Your task to perform on an android device: open sync settings in chrome Image 0: 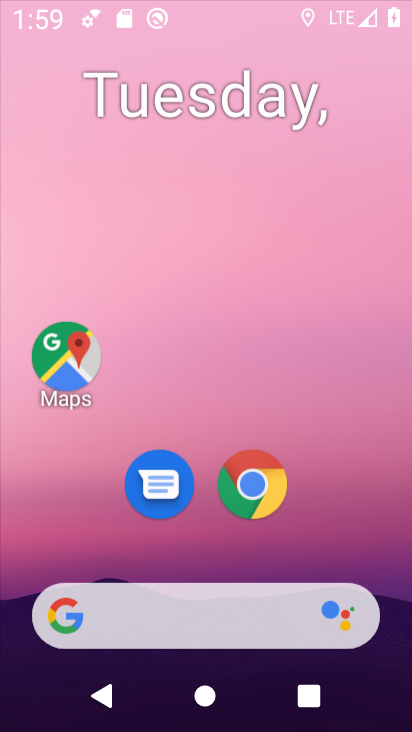
Step 0: press home button
Your task to perform on an android device: open sync settings in chrome Image 1: 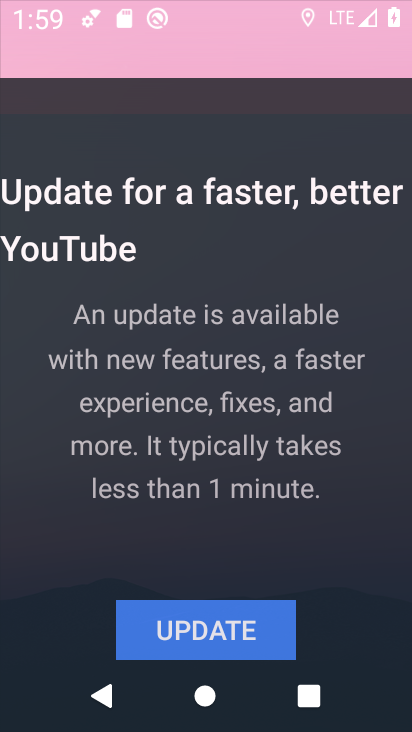
Step 1: drag from (346, 468) to (348, 78)
Your task to perform on an android device: open sync settings in chrome Image 2: 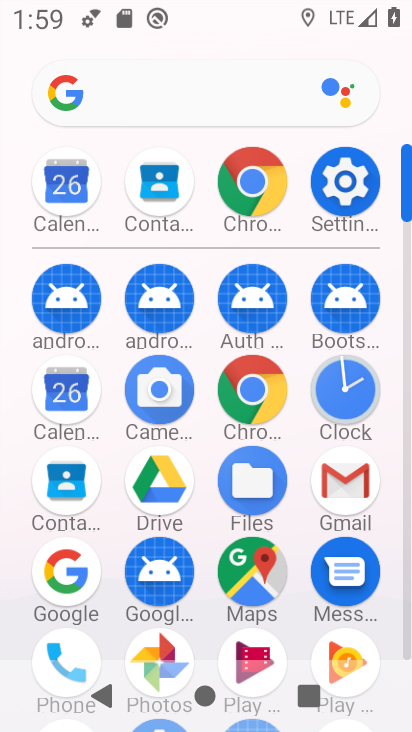
Step 2: click (249, 391)
Your task to perform on an android device: open sync settings in chrome Image 3: 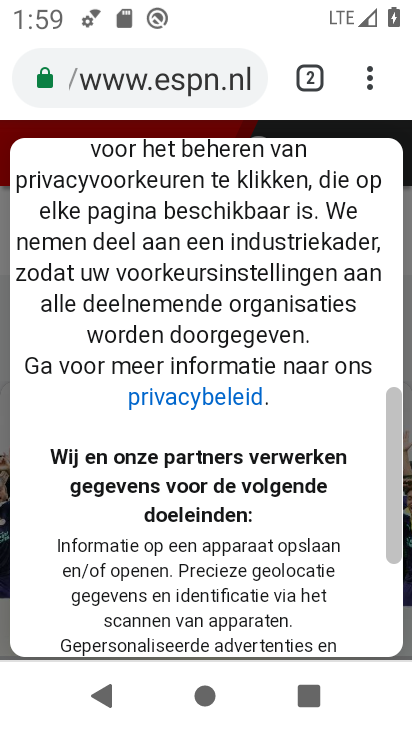
Step 3: click (367, 84)
Your task to perform on an android device: open sync settings in chrome Image 4: 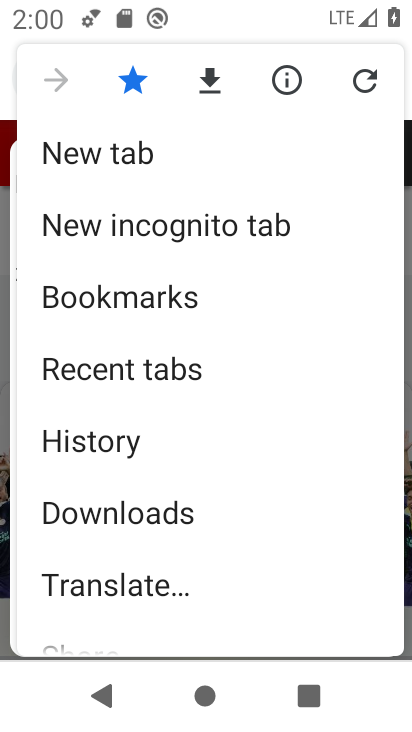
Step 4: drag from (298, 442) to (298, 340)
Your task to perform on an android device: open sync settings in chrome Image 5: 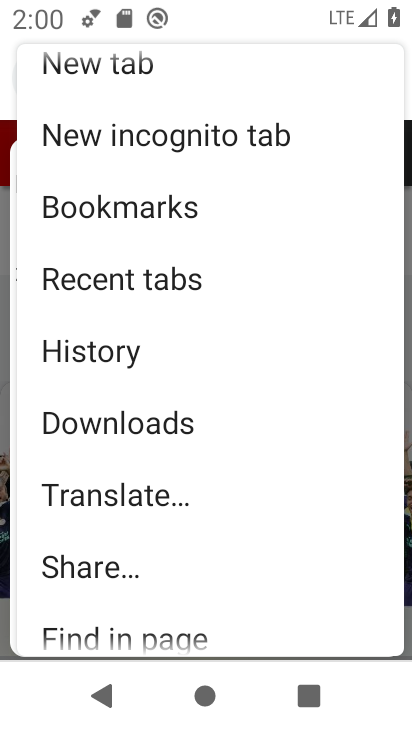
Step 5: drag from (300, 462) to (299, 337)
Your task to perform on an android device: open sync settings in chrome Image 6: 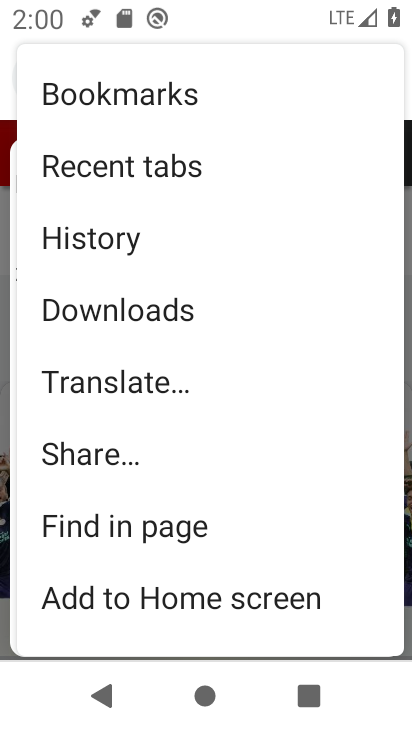
Step 6: drag from (299, 453) to (302, 325)
Your task to perform on an android device: open sync settings in chrome Image 7: 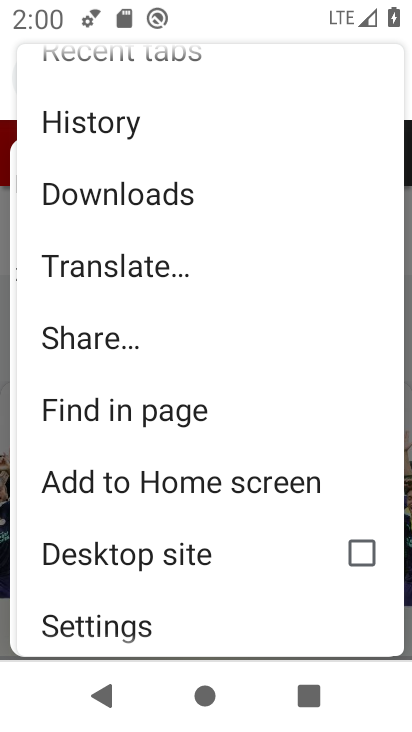
Step 7: drag from (302, 366) to (302, 254)
Your task to perform on an android device: open sync settings in chrome Image 8: 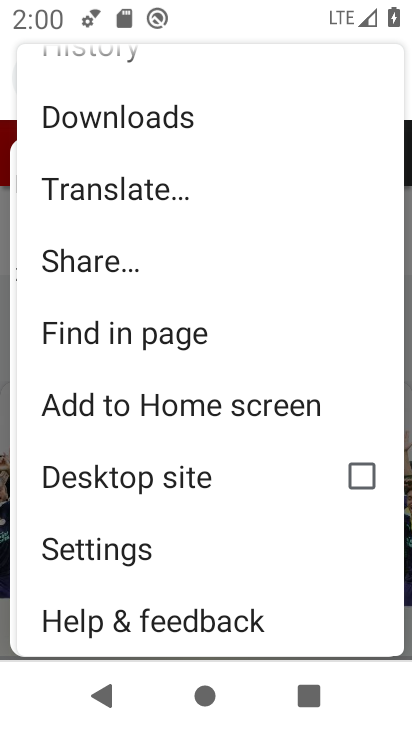
Step 8: drag from (303, 465) to (302, 336)
Your task to perform on an android device: open sync settings in chrome Image 9: 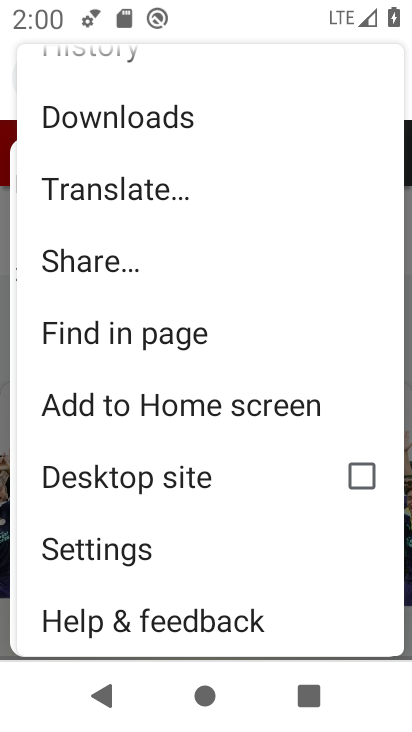
Step 9: click (142, 559)
Your task to perform on an android device: open sync settings in chrome Image 10: 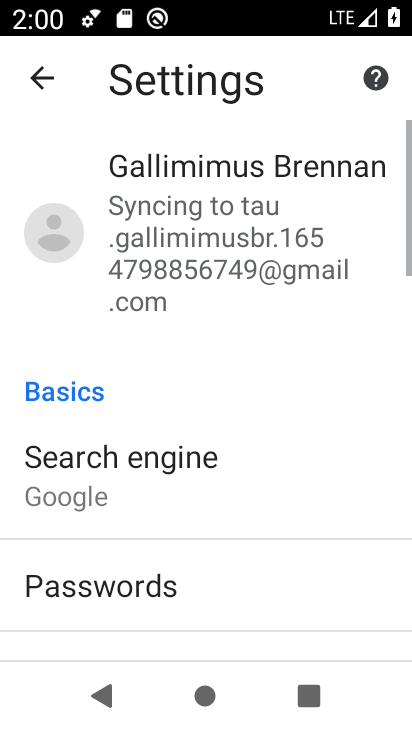
Step 10: drag from (306, 491) to (310, 353)
Your task to perform on an android device: open sync settings in chrome Image 11: 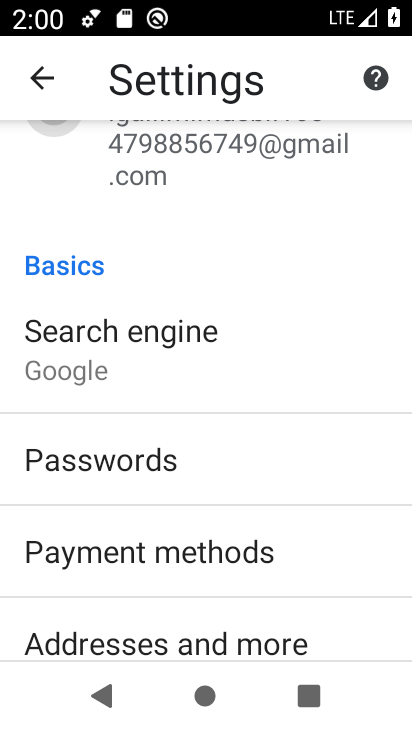
Step 11: drag from (326, 539) to (332, 426)
Your task to perform on an android device: open sync settings in chrome Image 12: 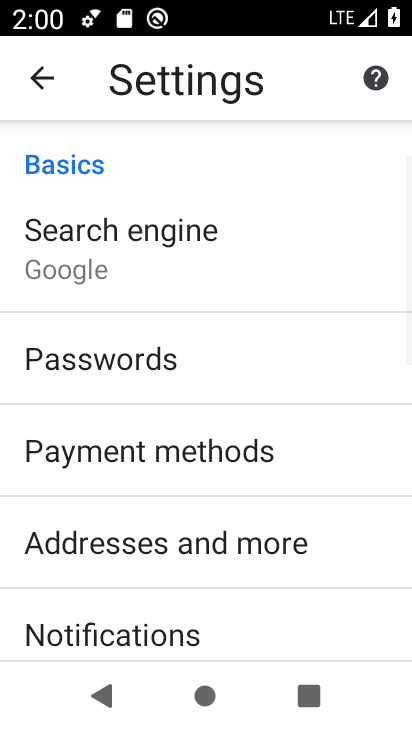
Step 12: drag from (335, 588) to (339, 463)
Your task to perform on an android device: open sync settings in chrome Image 13: 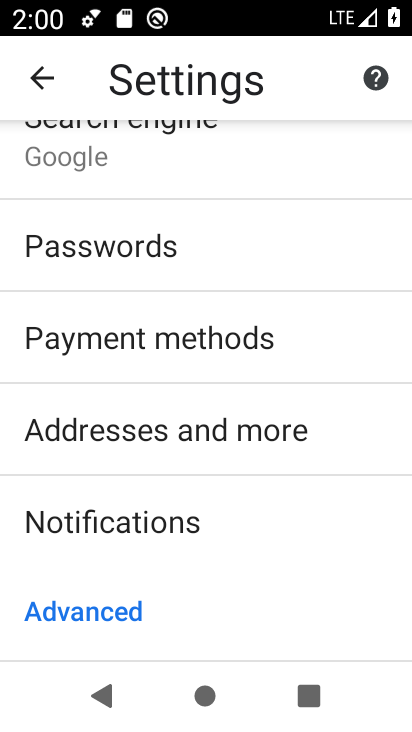
Step 13: drag from (323, 568) to (324, 442)
Your task to perform on an android device: open sync settings in chrome Image 14: 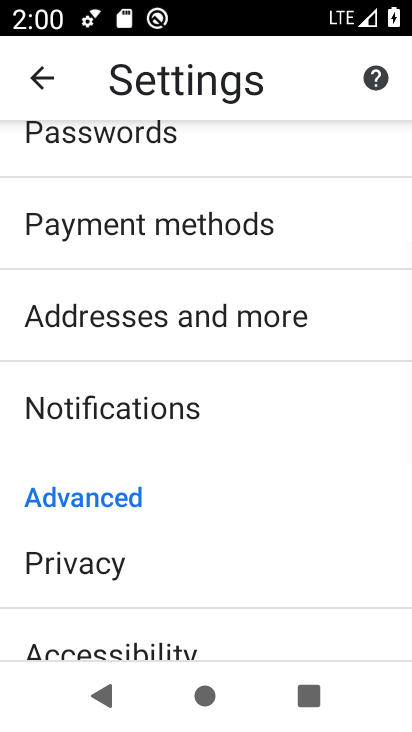
Step 14: drag from (315, 552) to (314, 412)
Your task to perform on an android device: open sync settings in chrome Image 15: 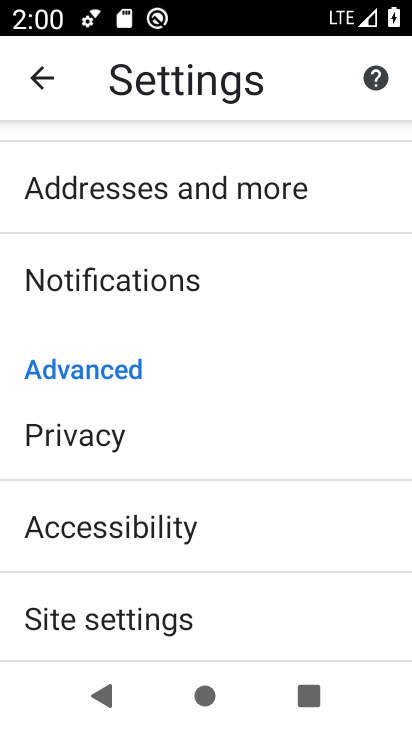
Step 15: drag from (312, 561) to (312, 436)
Your task to perform on an android device: open sync settings in chrome Image 16: 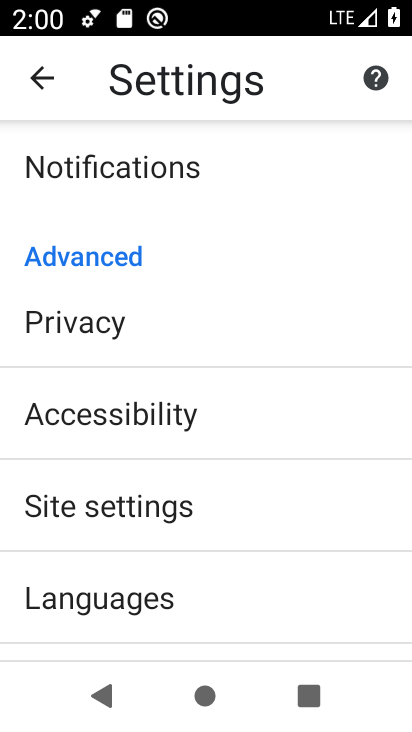
Step 16: drag from (308, 569) to (307, 463)
Your task to perform on an android device: open sync settings in chrome Image 17: 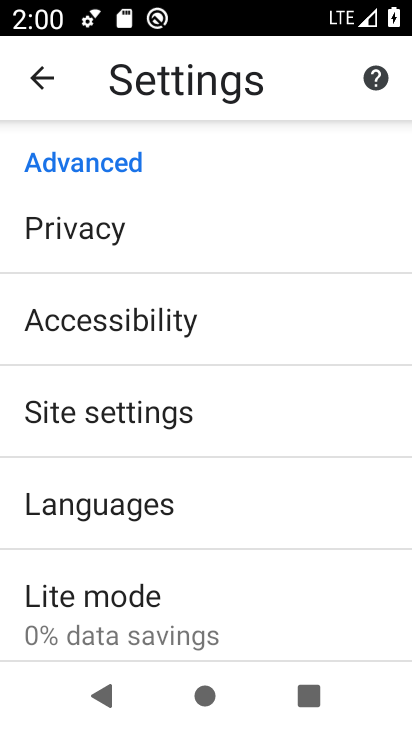
Step 17: drag from (294, 548) to (293, 446)
Your task to perform on an android device: open sync settings in chrome Image 18: 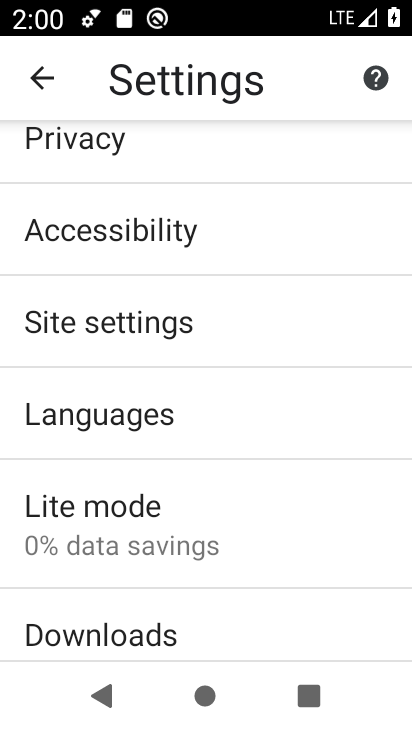
Step 18: click (273, 315)
Your task to perform on an android device: open sync settings in chrome Image 19: 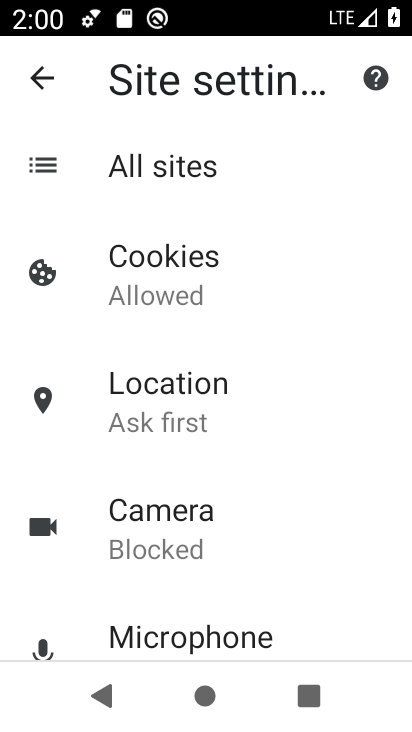
Step 19: drag from (313, 487) to (314, 375)
Your task to perform on an android device: open sync settings in chrome Image 20: 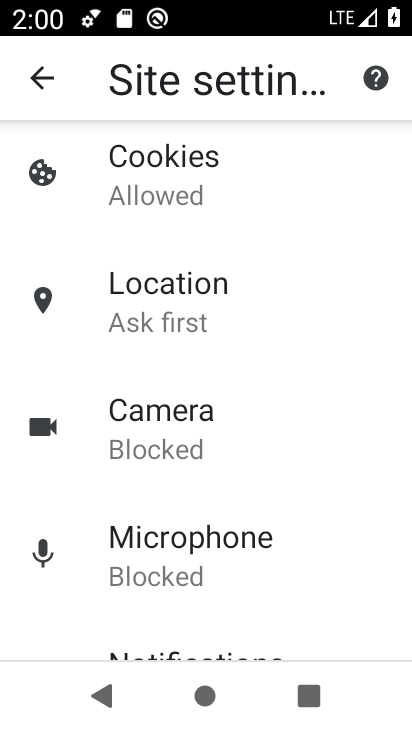
Step 20: drag from (325, 523) to (324, 414)
Your task to perform on an android device: open sync settings in chrome Image 21: 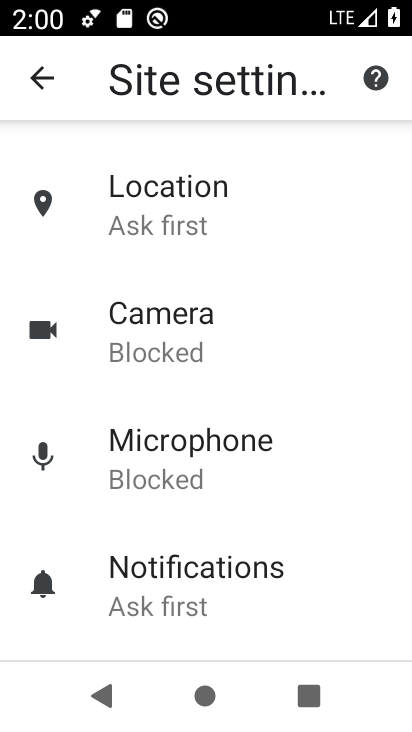
Step 21: drag from (323, 539) to (326, 369)
Your task to perform on an android device: open sync settings in chrome Image 22: 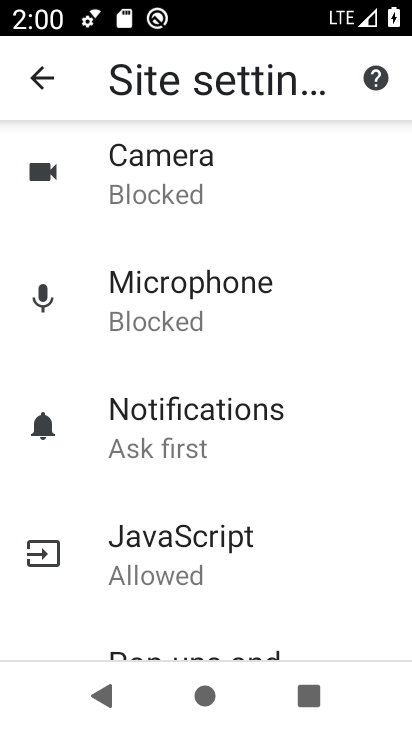
Step 22: drag from (329, 571) to (332, 410)
Your task to perform on an android device: open sync settings in chrome Image 23: 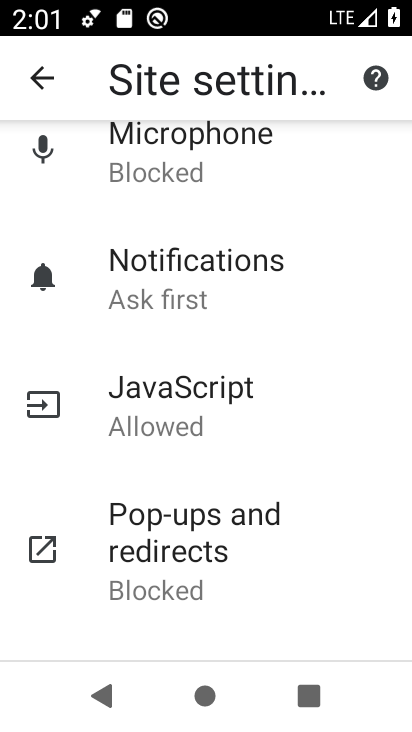
Step 23: drag from (334, 549) to (336, 403)
Your task to perform on an android device: open sync settings in chrome Image 24: 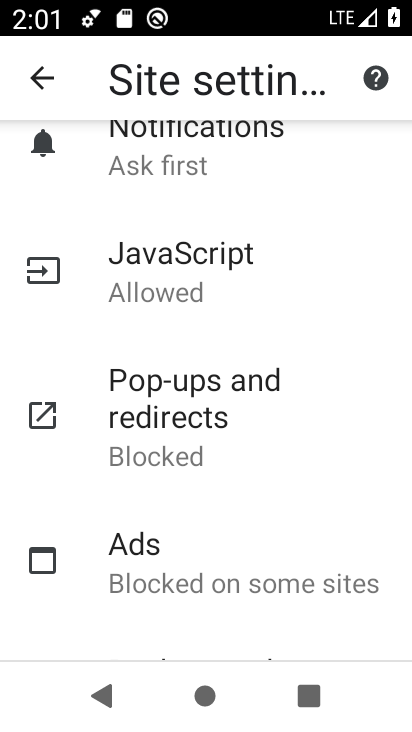
Step 24: drag from (309, 598) to (323, 423)
Your task to perform on an android device: open sync settings in chrome Image 25: 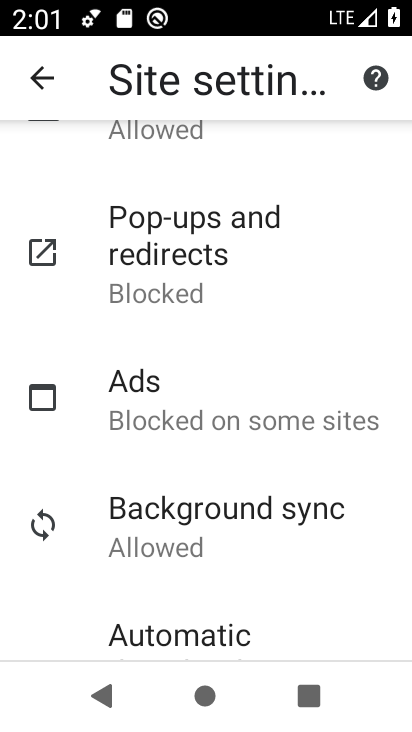
Step 25: click (322, 509)
Your task to perform on an android device: open sync settings in chrome Image 26: 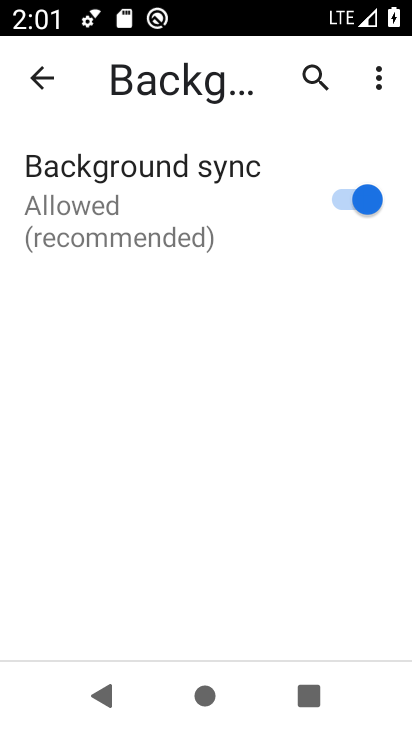
Step 26: task complete